Your task to perform on an android device: turn off improve location accuracy Image 0: 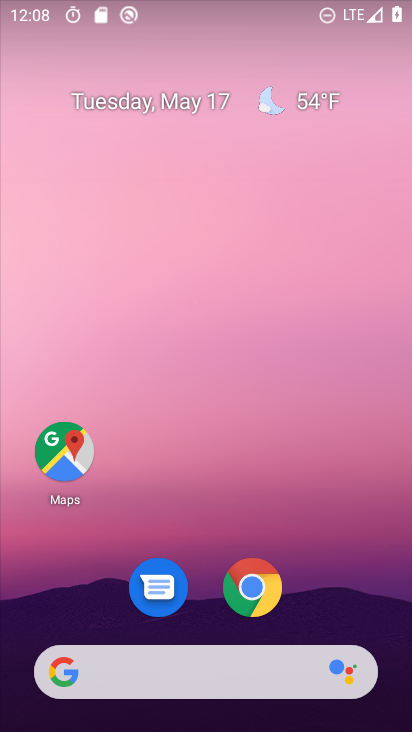
Step 0: click (289, 14)
Your task to perform on an android device: turn off improve location accuracy Image 1: 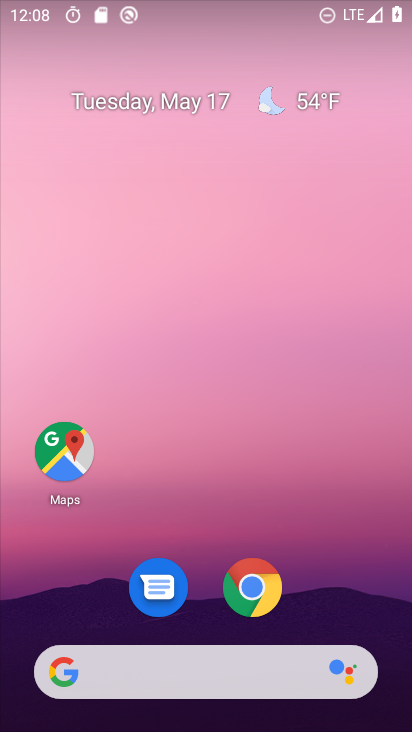
Step 1: drag from (197, 617) to (265, 18)
Your task to perform on an android device: turn off improve location accuracy Image 2: 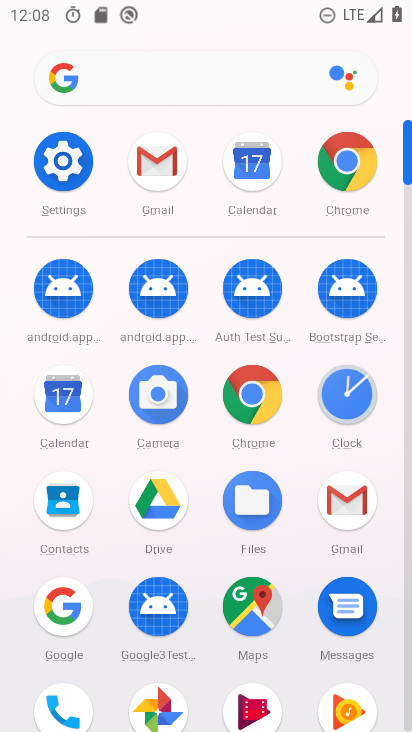
Step 2: click (66, 167)
Your task to perform on an android device: turn off improve location accuracy Image 3: 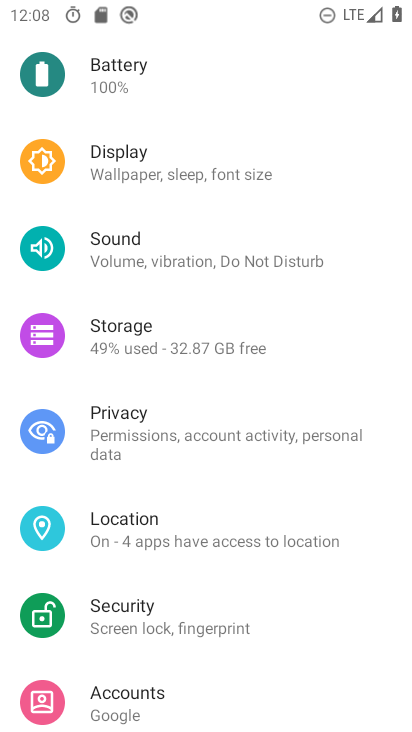
Step 3: click (155, 538)
Your task to perform on an android device: turn off improve location accuracy Image 4: 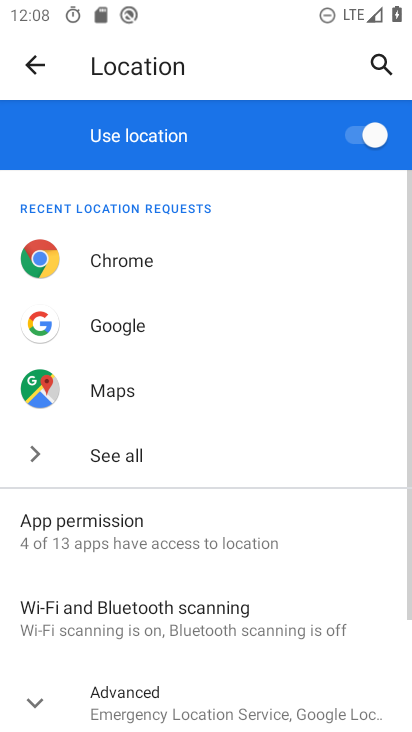
Step 4: click (116, 673)
Your task to perform on an android device: turn off improve location accuracy Image 5: 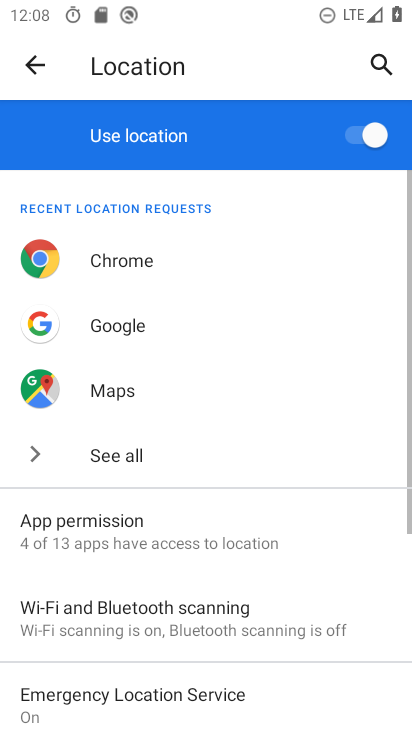
Step 5: drag from (124, 664) to (198, 77)
Your task to perform on an android device: turn off improve location accuracy Image 6: 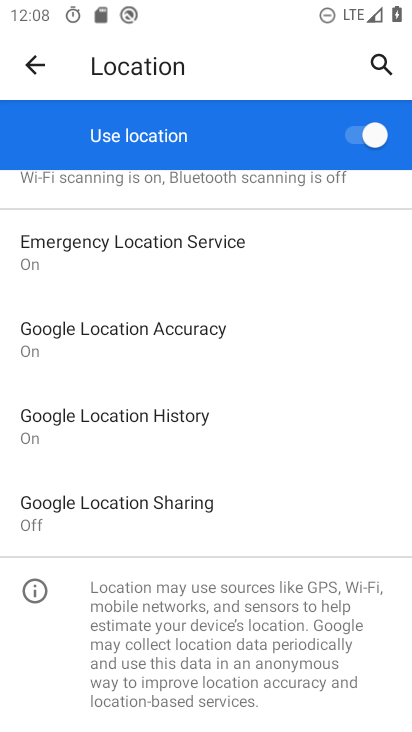
Step 6: click (184, 341)
Your task to perform on an android device: turn off improve location accuracy Image 7: 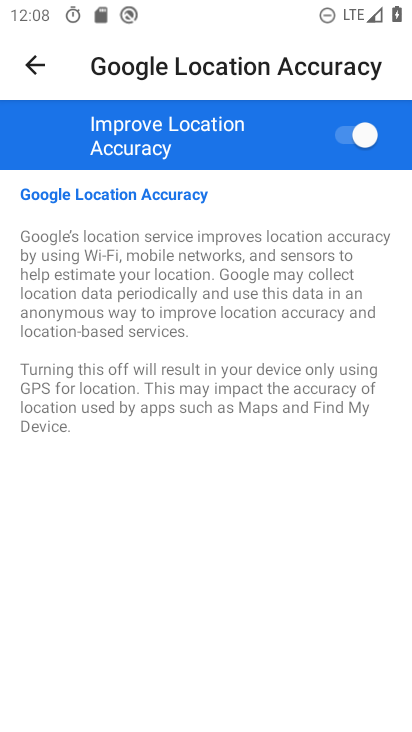
Step 7: click (339, 136)
Your task to perform on an android device: turn off improve location accuracy Image 8: 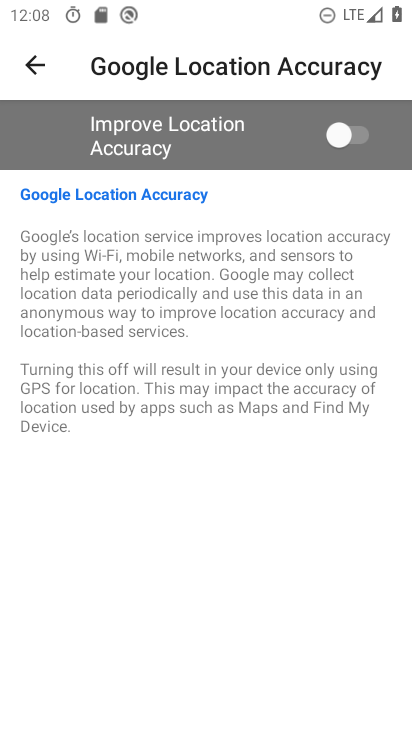
Step 8: task complete